Your task to perform on an android device: create a new album in the google photos Image 0: 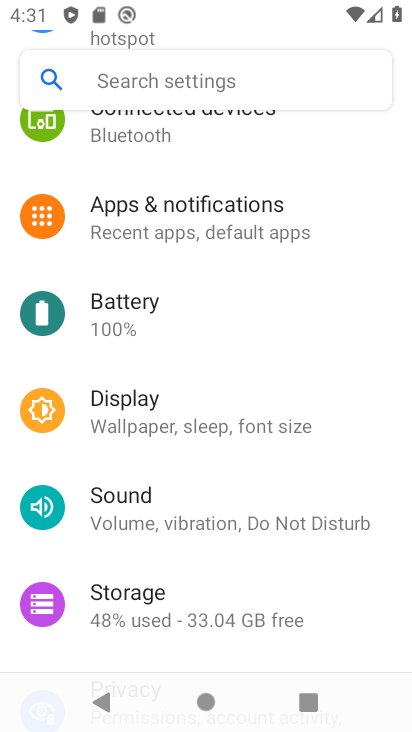
Step 0: press back button
Your task to perform on an android device: create a new album in the google photos Image 1: 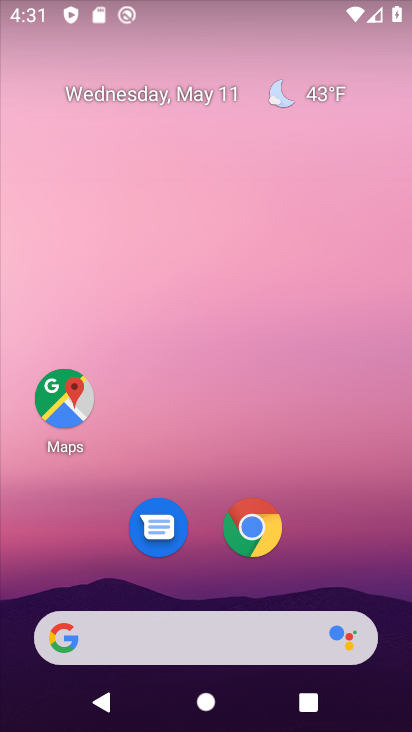
Step 1: drag from (67, 600) to (190, 96)
Your task to perform on an android device: create a new album in the google photos Image 2: 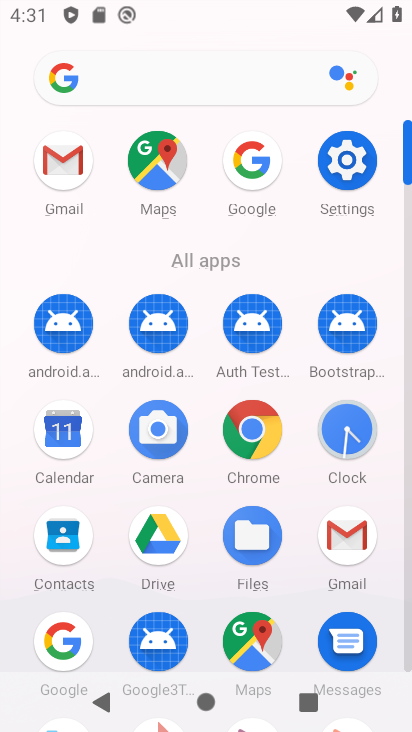
Step 2: drag from (190, 650) to (243, 457)
Your task to perform on an android device: create a new album in the google photos Image 3: 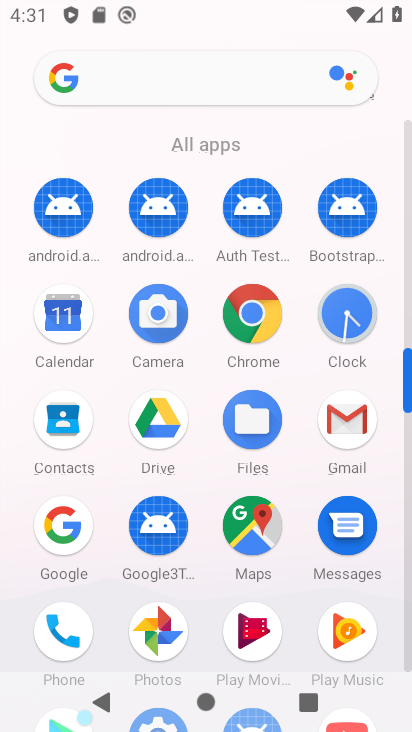
Step 3: click (172, 637)
Your task to perform on an android device: create a new album in the google photos Image 4: 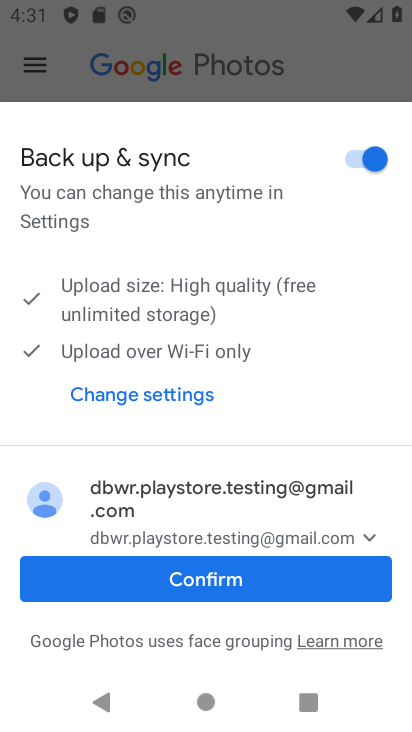
Step 4: click (227, 589)
Your task to perform on an android device: create a new album in the google photos Image 5: 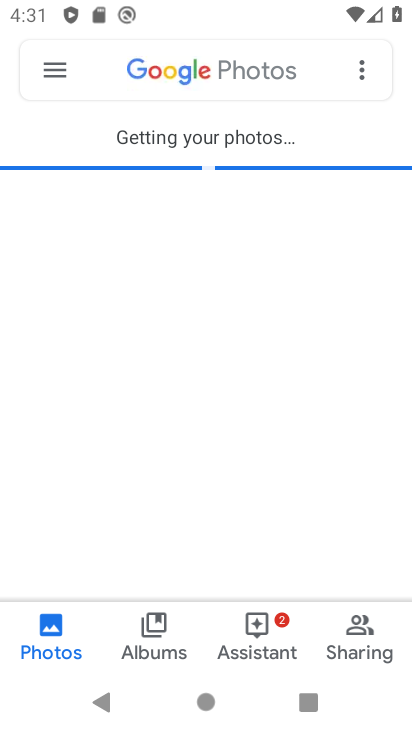
Step 5: click (355, 82)
Your task to perform on an android device: create a new album in the google photos Image 6: 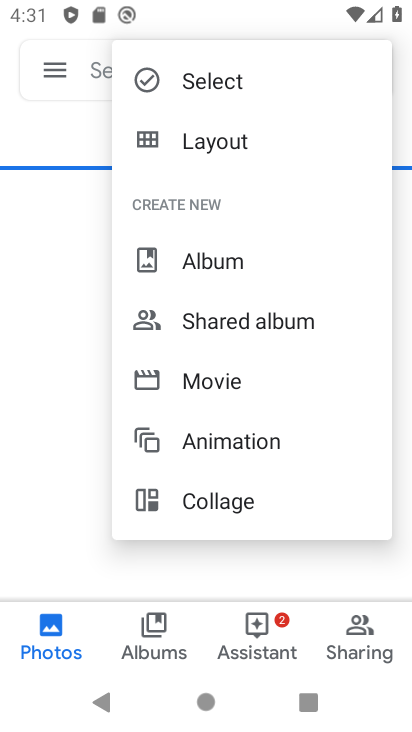
Step 6: click (240, 281)
Your task to perform on an android device: create a new album in the google photos Image 7: 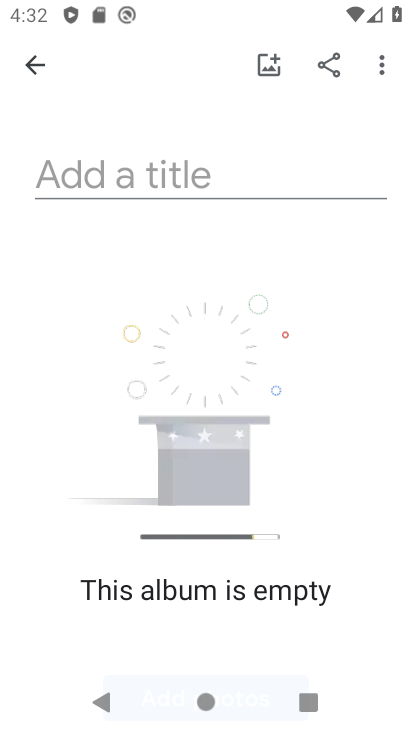
Step 7: click (180, 183)
Your task to perform on an android device: create a new album in the google photos Image 8: 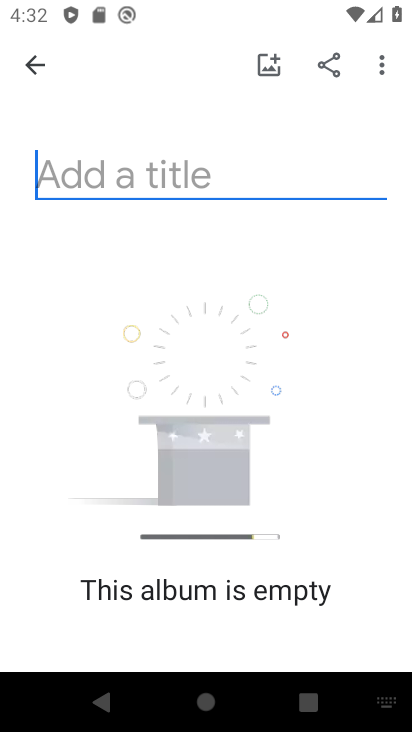
Step 8: type "vbvbvbv"
Your task to perform on an android device: create a new album in the google photos Image 9: 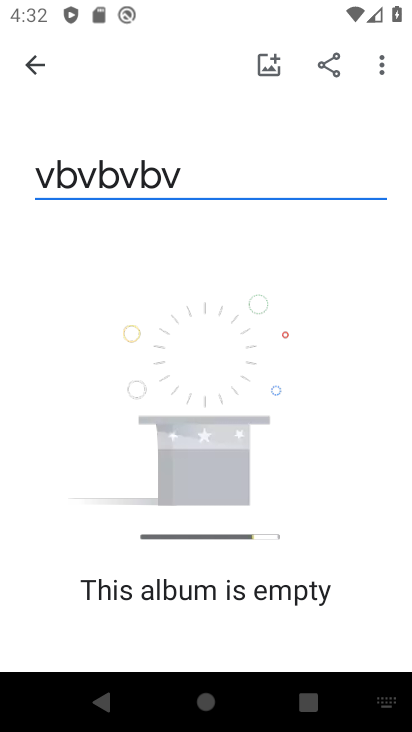
Step 9: click (257, 56)
Your task to perform on an android device: create a new album in the google photos Image 10: 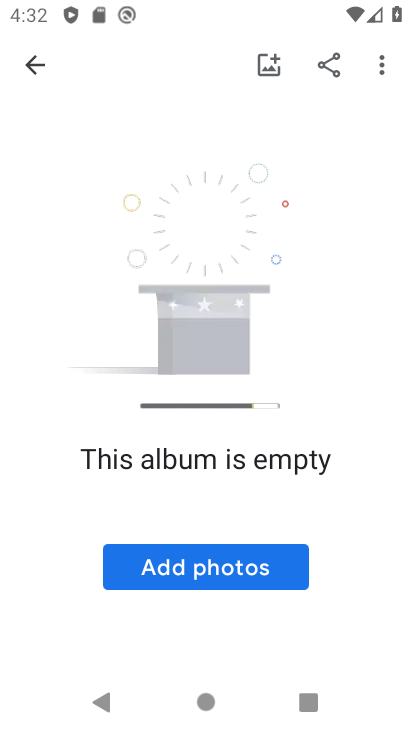
Step 10: click (245, 579)
Your task to perform on an android device: create a new album in the google photos Image 11: 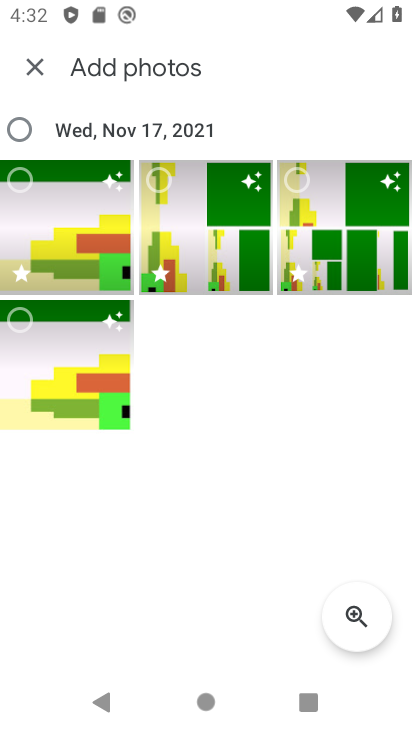
Step 11: click (36, 127)
Your task to perform on an android device: create a new album in the google photos Image 12: 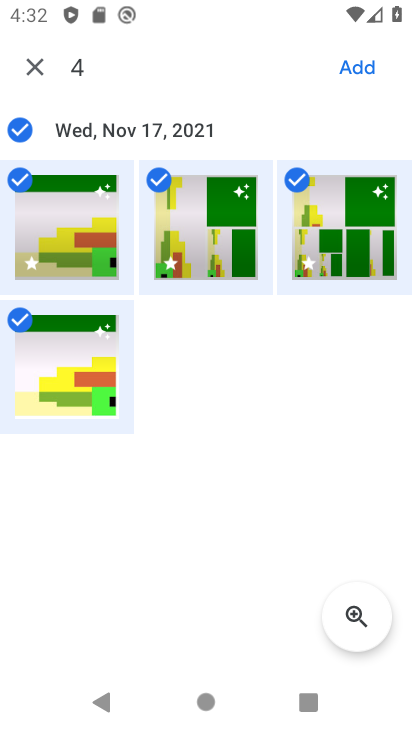
Step 12: click (365, 68)
Your task to perform on an android device: create a new album in the google photos Image 13: 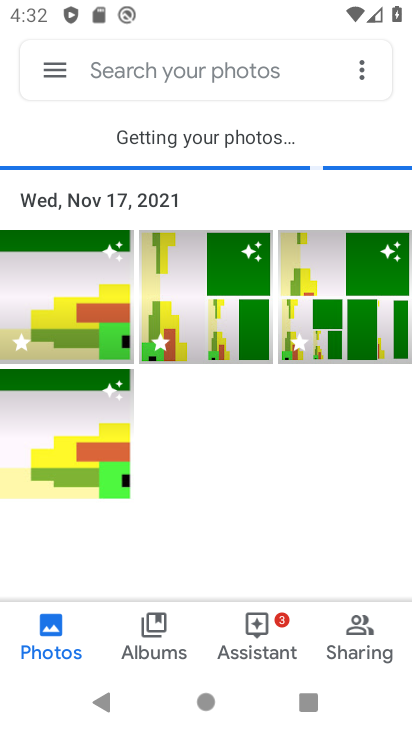
Step 13: click (370, 70)
Your task to perform on an android device: create a new album in the google photos Image 14: 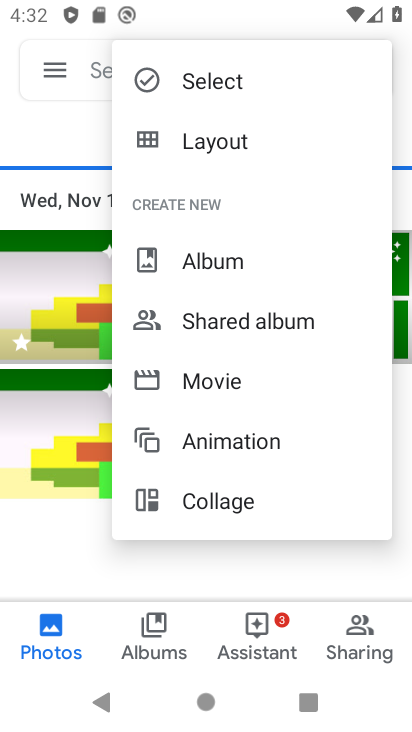
Step 14: click (239, 253)
Your task to perform on an android device: create a new album in the google photos Image 15: 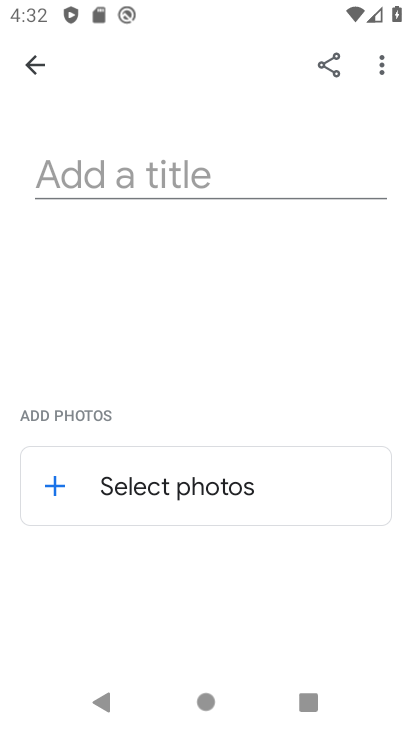
Step 15: click (186, 171)
Your task to perform on an android device: create a new album in the google photos Image 16: 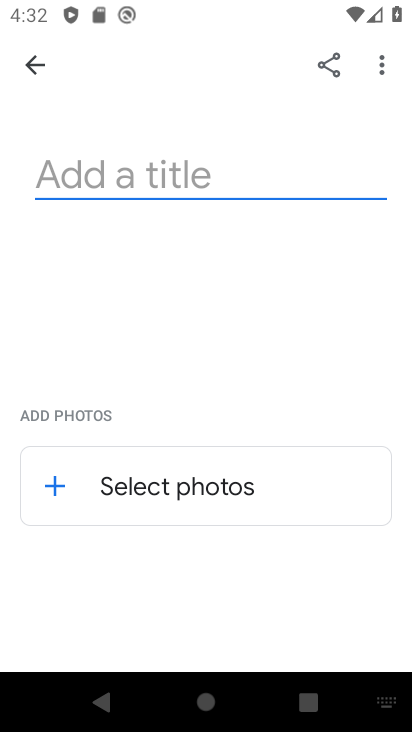
Step 16: type "vbvbvbvb"
Your task to perform on an android device: create a new album in the google photos Image 17: 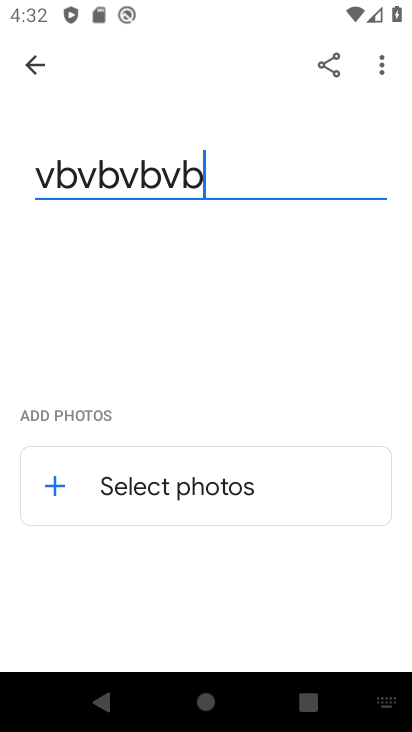
Step 17: click (165, 483)
Your task to perform on an android device: create a new album in the google photos Image 18: 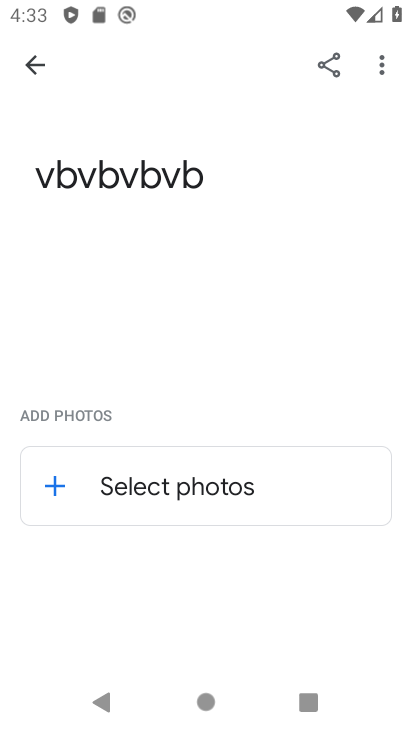
Step 18: click (242, 495)
Your task to perform on an android device: create a new album in the google photos Image 19: 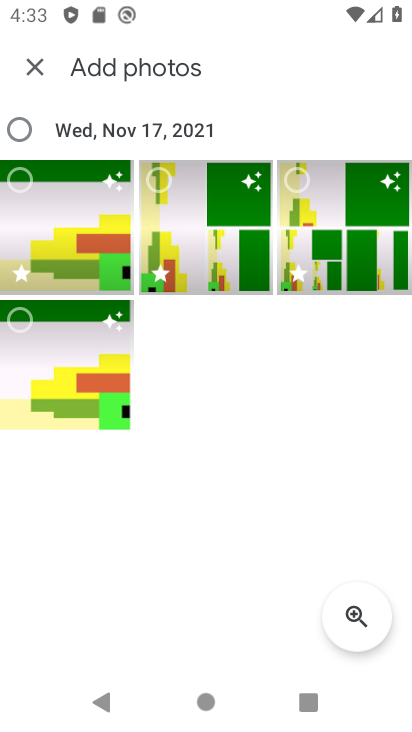
Step 19: click (26, 132)
Your task to perform on an android device: create a new album in the google photos Image 20: 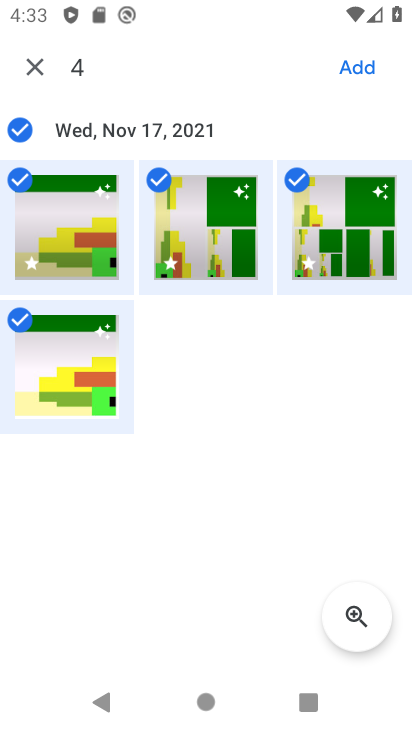
Step 20: click (377, 74)
Your task to perform on an android device: create a new album in the google photos Image 21: 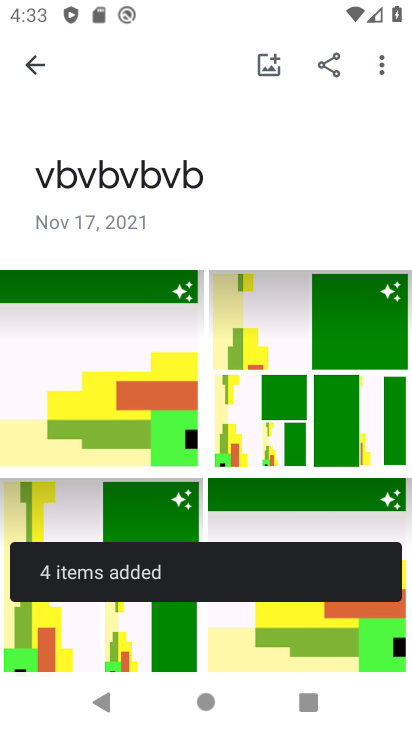
Step 21: task complete